Your task to perform on an android device: change the upload size in google photos Image 0: 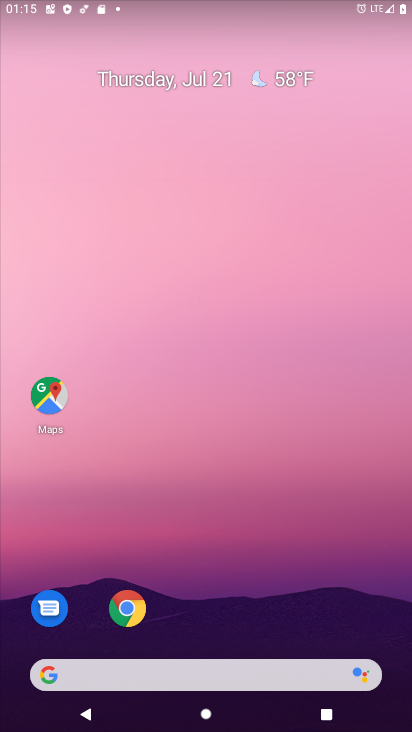
Step 0: drag from (206, 635) to (230, 3)
Your task to perform on an android device: change the upload size in google photos Image 1: 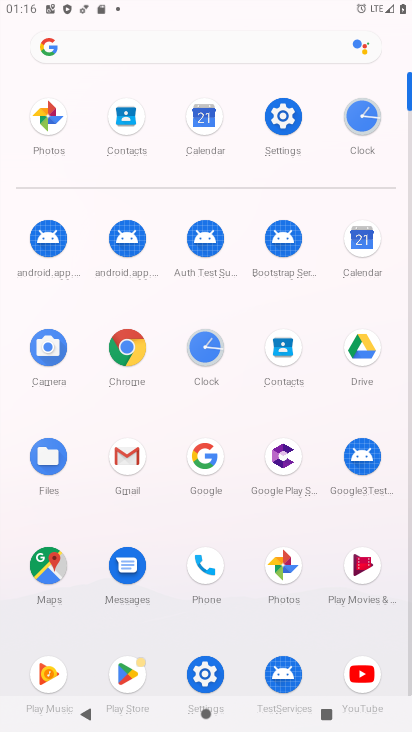
Step 1: click (279, 563)
Your task to perform on an android device: change the upload size in google photos Image 2: 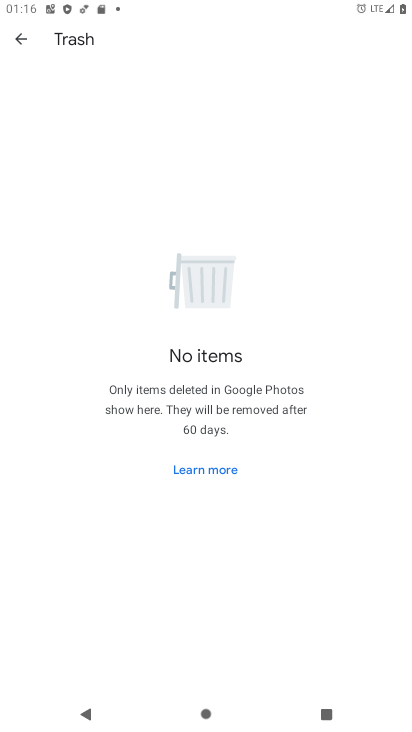
Step 2: click (16, 35)
Your task to perform on an android device: change the upload size in google photos Image 3: 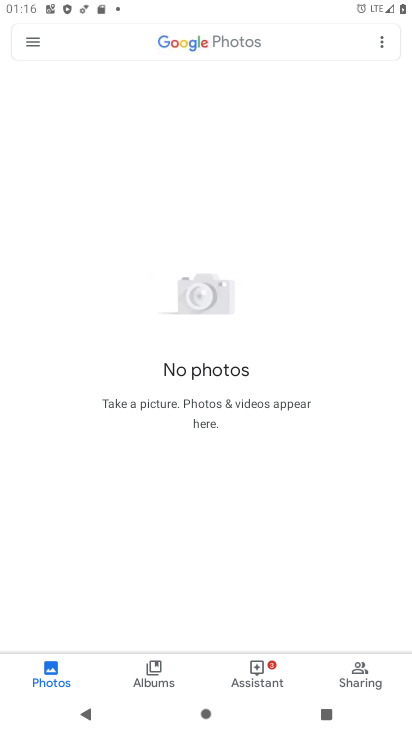
Step 3: click (26, 35)
Your task to perform on an android device: change the upload size in google photos Image 4: 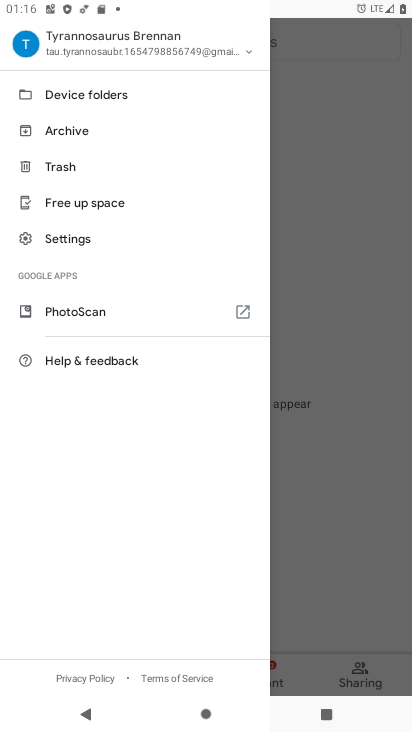
Step 4: click (93, 238)
Your task to perform on an android device: change the upload size in google photos Image 5: 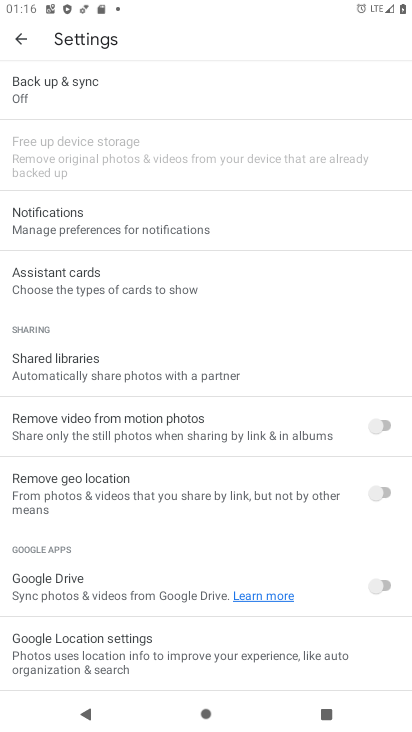
Step 5: click (63, 102)
Your task to perform on an android device: change the upload size in google photos Image 6: 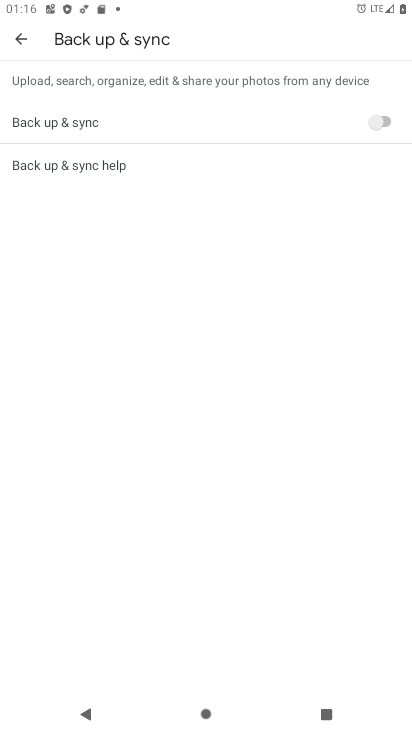
Step 6: click (381, 116)
Your task to perform on an android device: change the upload size in google photos Image 7: 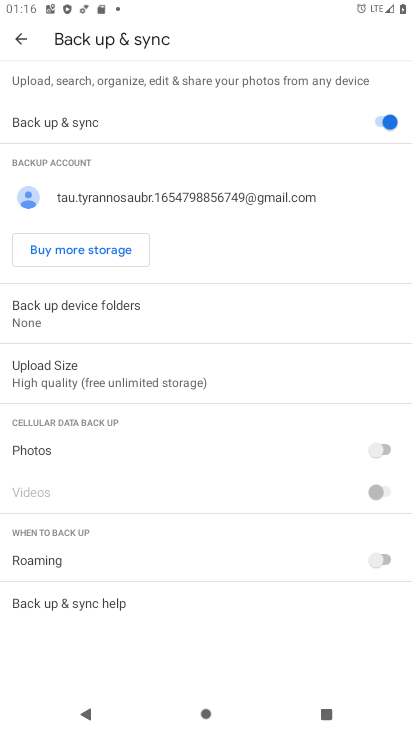
Step 7: task complete